Your task to perform on an android device: turn on javascript in the chrome app Image 0: 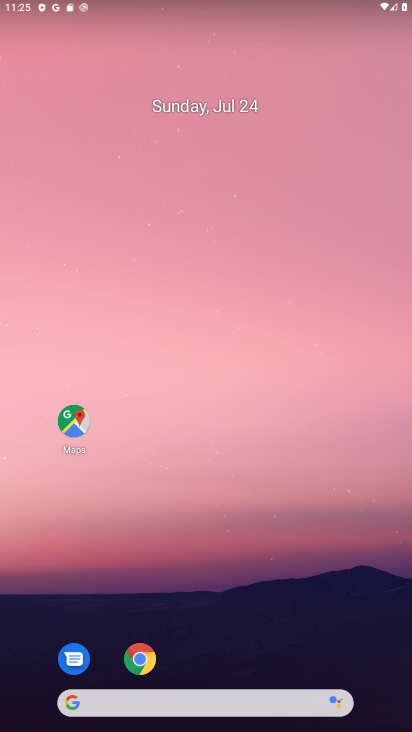
Step 0: drag from (176, 670) to (238, 120)
Your task to perform on an android device: turn on javascript in the chrome app Image 1: 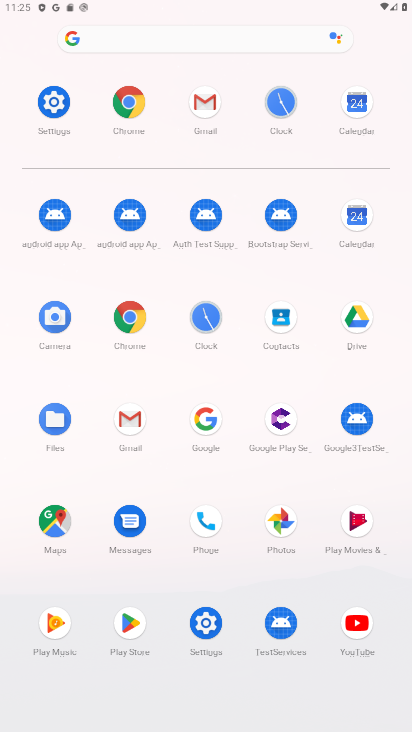
Step 1: click (132, 307)
Your task to perform on an android device: turn on javascript in the chrome app Image 2: 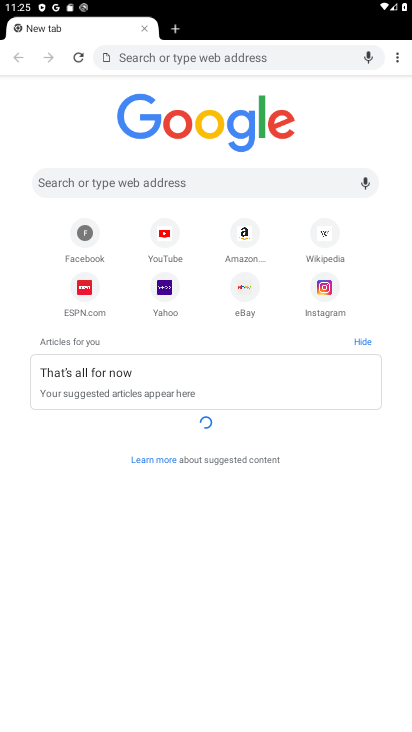
Step 2: click (408, 52)
Your task to perform on an android device: turn on javascript in the chrome app Image 3: 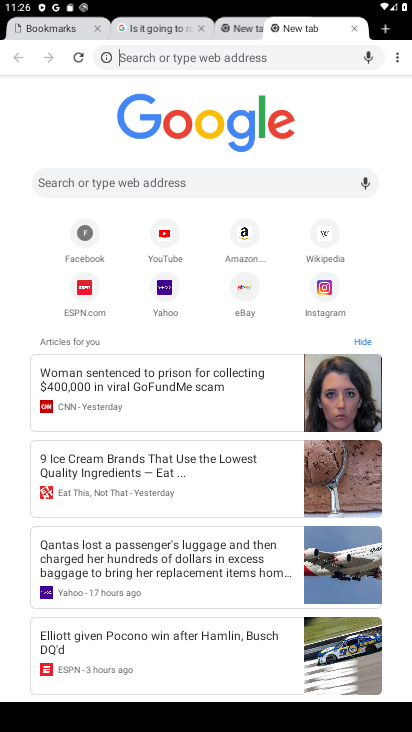
Step 3: click (394, 50)
Your task to perform on an android device: turn on javascript in the chrome app Image 4: 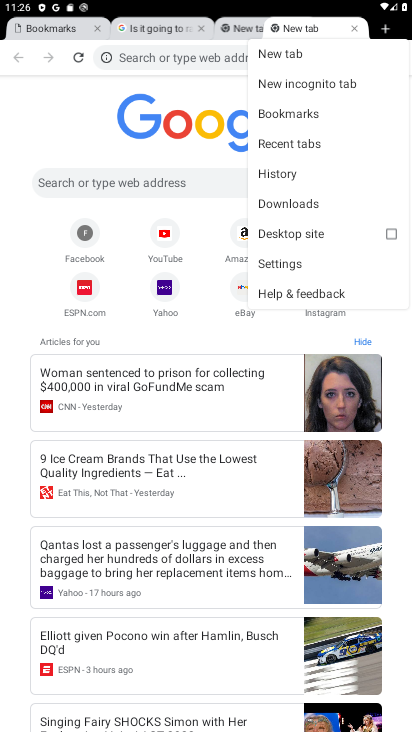
Step 4: click (264, 253)
Your task to perform on an android device: turn on javascript in the chrome app Image 5: 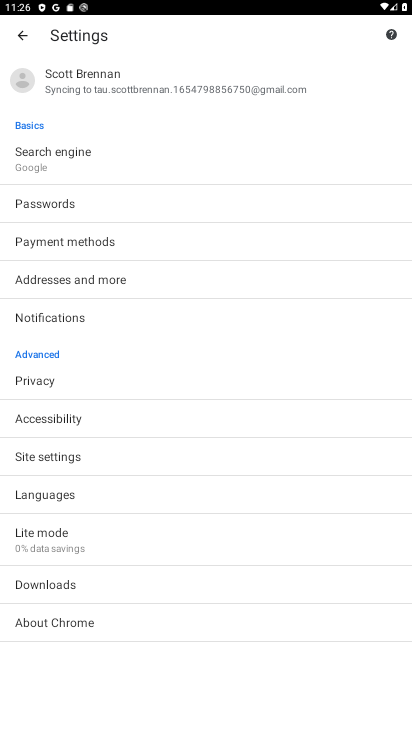
Step 5: click (76, 454)
Your task to perform on an android device: turn on javascript in the chrome app Image 6: 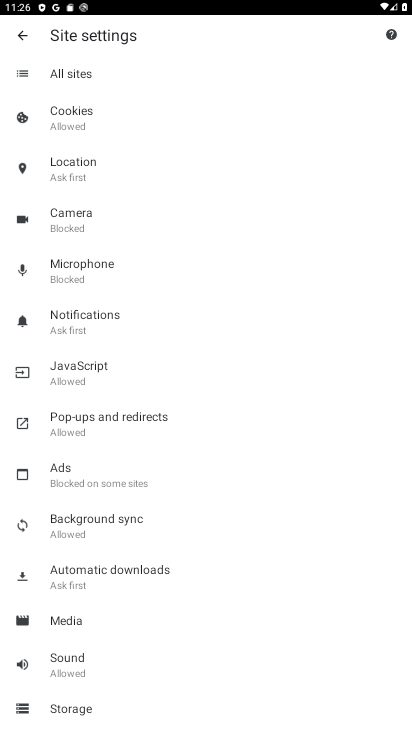
Step 6: click (109, 372)
Your task to perform on an android device: turn on javascript in the chrome app Image 7: 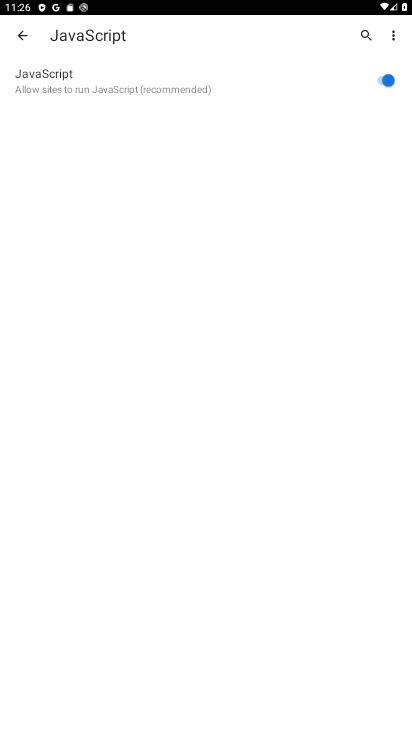
Step 7: task complete